Your task to perform on an android device: turn on showing notifications on the lock screen Image 0: 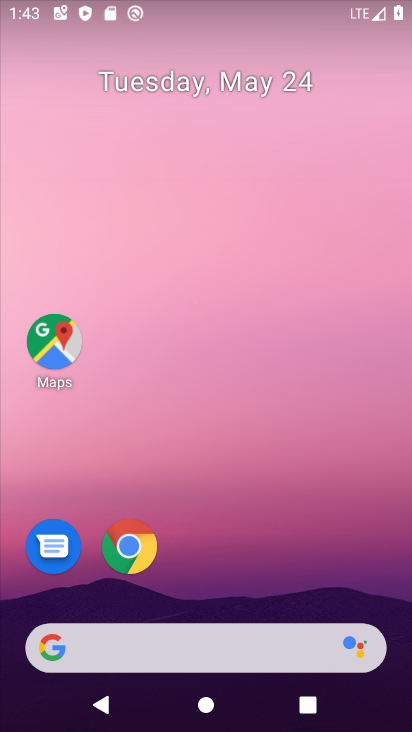
Step 0: drag from (218, 580) to (282, 17)
Your task to perform on an android device: turn on showing notifications on the lock screen Image 1: 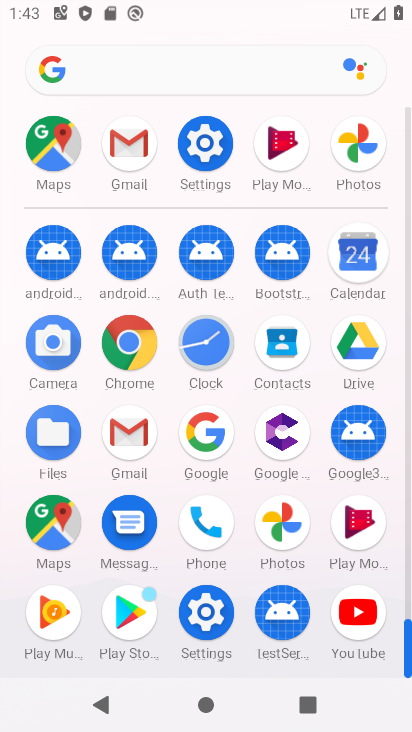
Step 1: click (207, 151)
Your task to perform on an android device: turn on showing notifications on the lock screen Image 2: 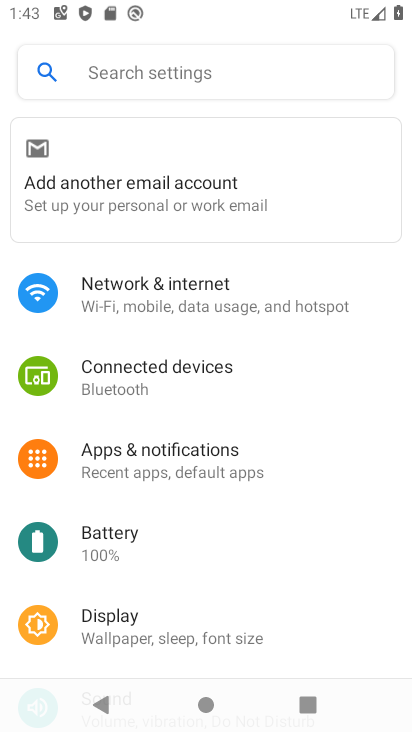
Step 2: click (158, 456)
Your task to perform on an android device: turn on showing notifications on the lock screen Image 3: 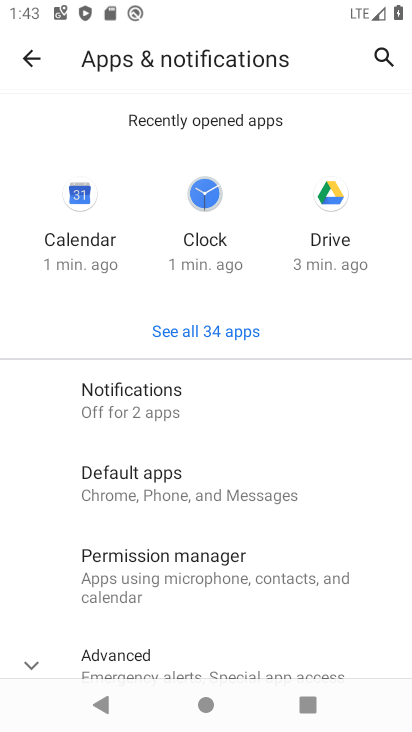
Step 3: click (196, 403)
Your task to perform on an android device: turn on showing notifications on the lock screen Image 4: 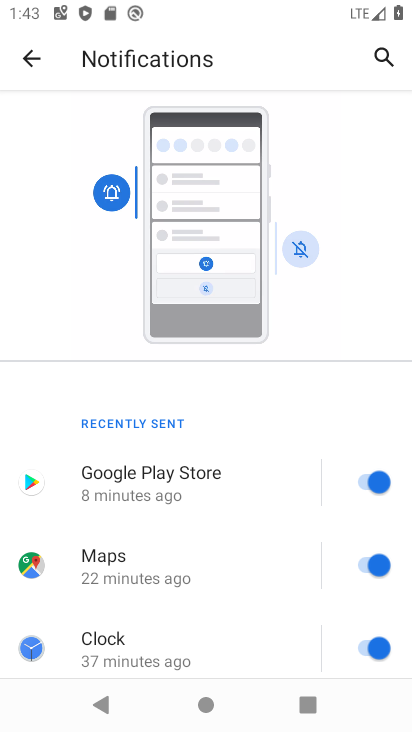
Step 4: drag from (208, 611) to (359, 97)
Your task to perform on an android device: turn on showing notifications on the lock screen Image 5: 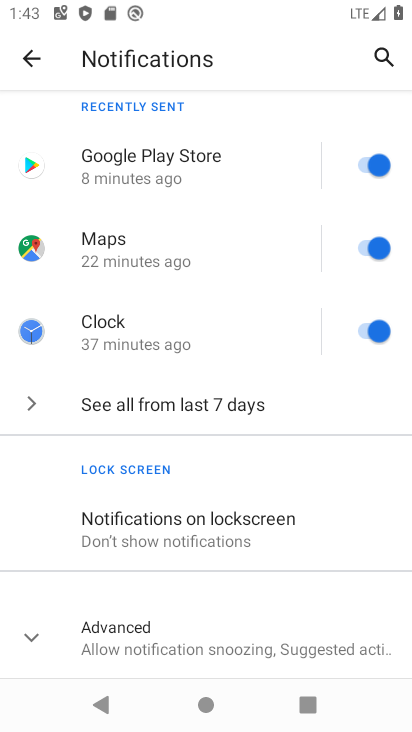
Step 5: click (217, 531)
Your task to perform on an android device: turn on showing notifications on the lock screen Image 6: 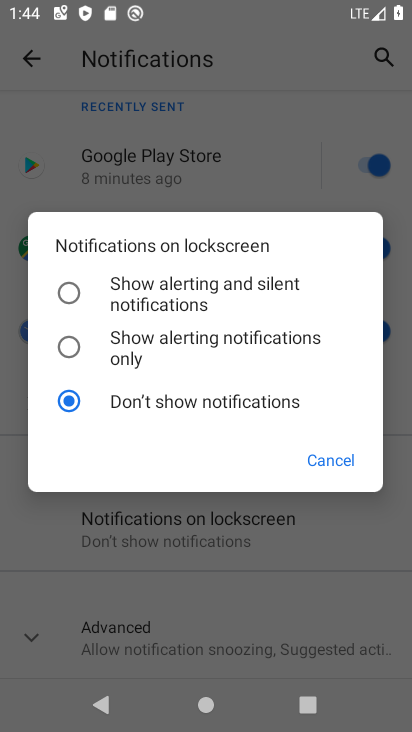
Step 6: click (84, 347)
Your task to perform on an android device: turn on showing notifications on the lock screen Image 7: 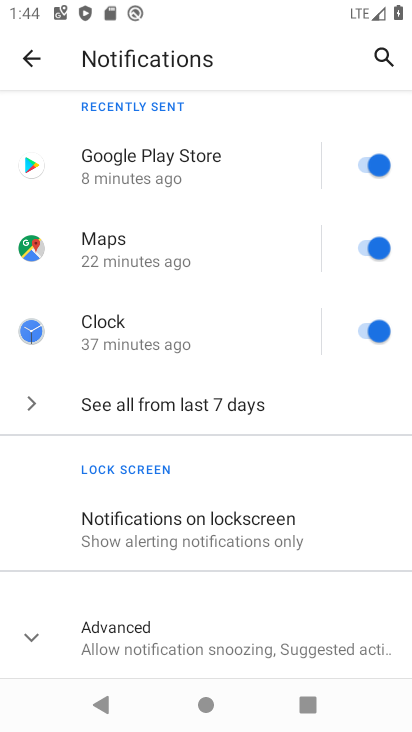
Step 7: task complete